Your task to perform on an android device: Turn on the flashlight Image 0: 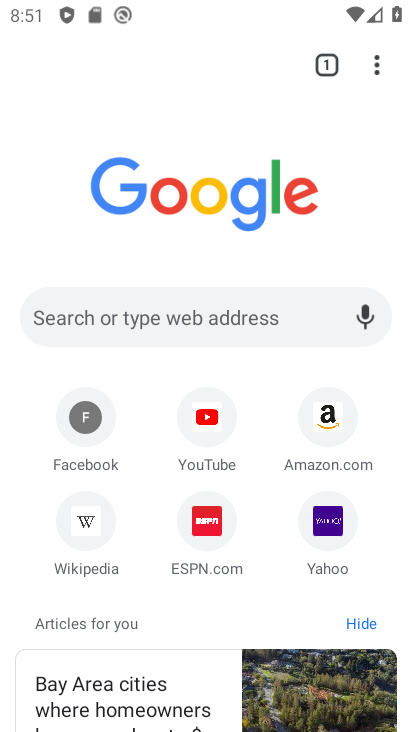
Step 0: press back button
Your task to perform on an android device: Turn on the flashlight Image 1: 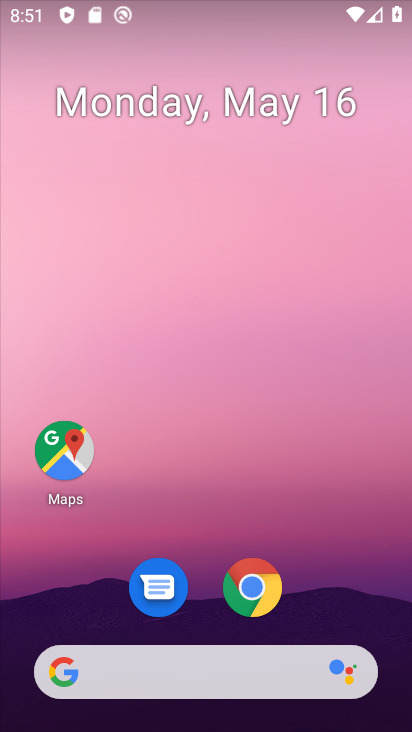
Step 1: drag from (252, 4) to (228, 311)
Your task to perform on an android device: Turn on the flashlight Image 2: 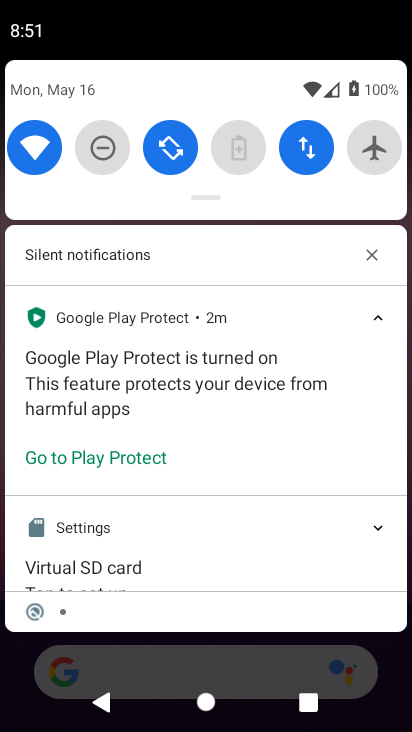
Step 2: drag from (268, 178) to (269, 381)
Your task to perform on an android device: Turn on the flashlight Image 3: 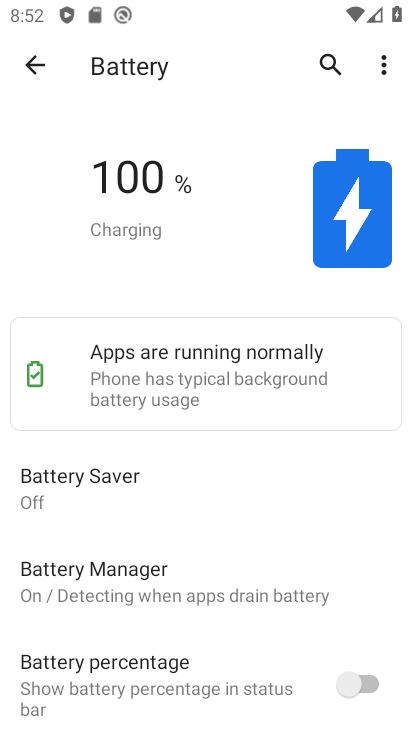
Step 3: drag from (271, 5) to (333, 659)
Your task to perform on an android device: Turn on the flashlight Image 4: 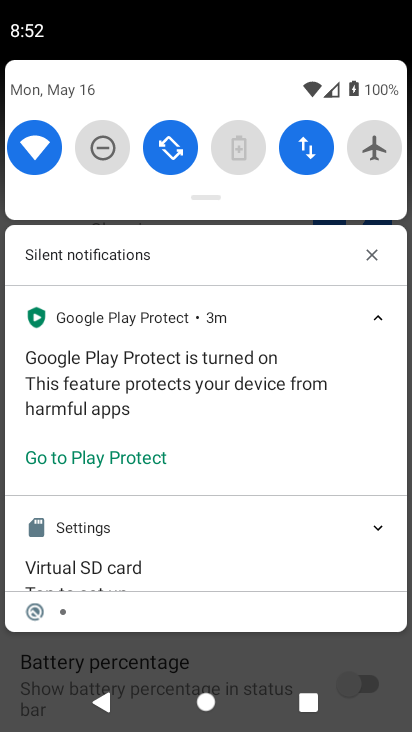
Step 4: drag from (196, 181) to (223, 724)
Your task to perform on an android device: Turn on the flashlight Image 5: 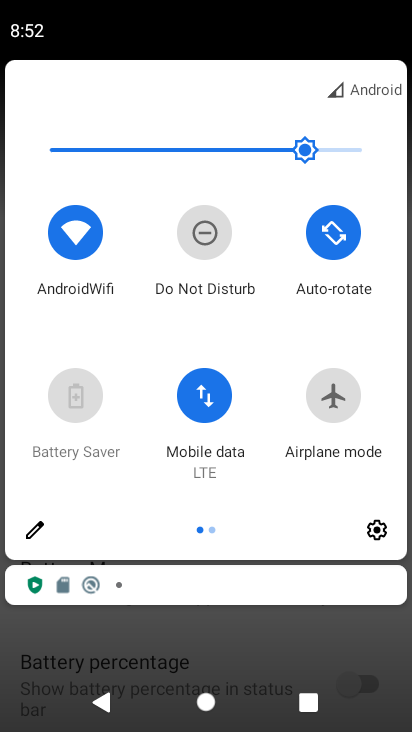
Step 5: click (47, 520)
Your task to perform on an android device: Turn on the flashlight Image 6: 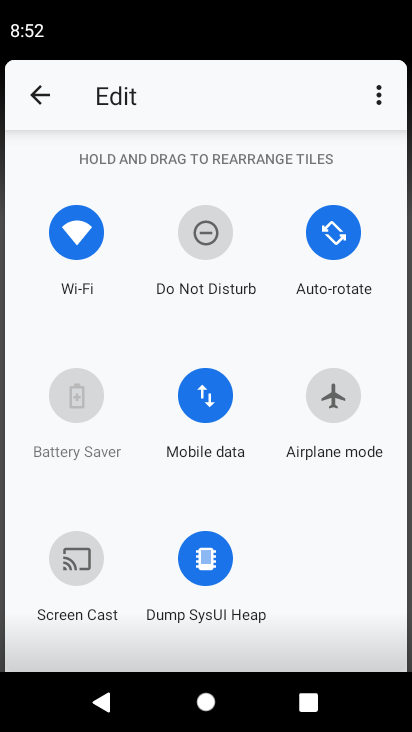
Step 6: task complete